Your task to perform on an android device: check data usage Image 0: 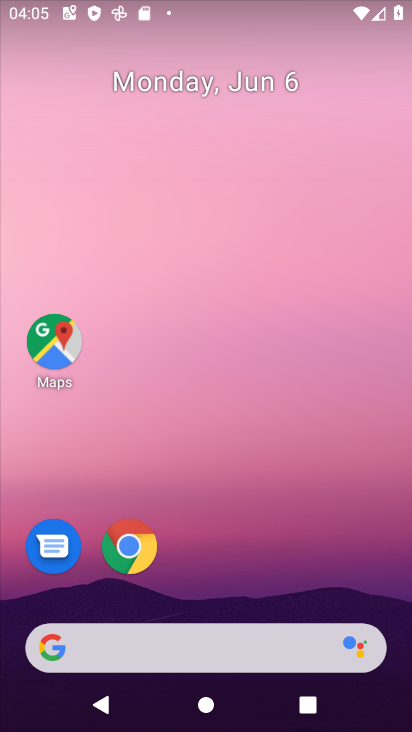
Step 0: drag from (258, 595) to (386, 3)
Your task to perform on an android device: check data usage Image 1: 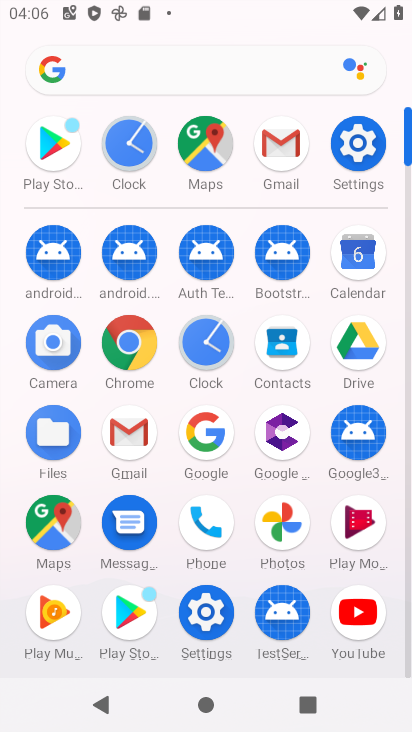
Step 1: click (369, 162)
Your task to perform on an android device: check data usage Image 2: 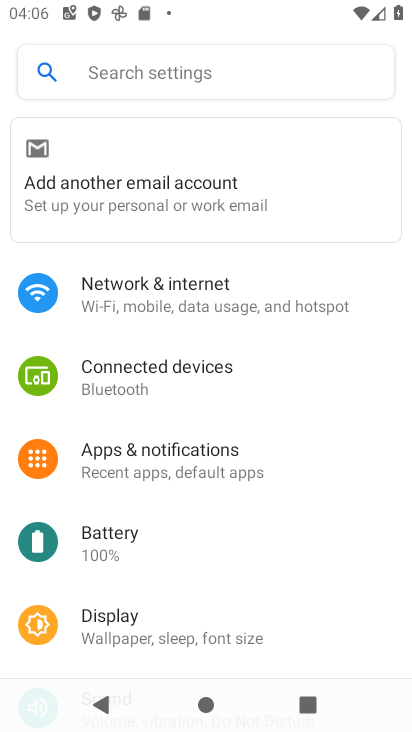
Step 2: click (202, 276)
Your task to perform on an android device: check data usage Image 3: 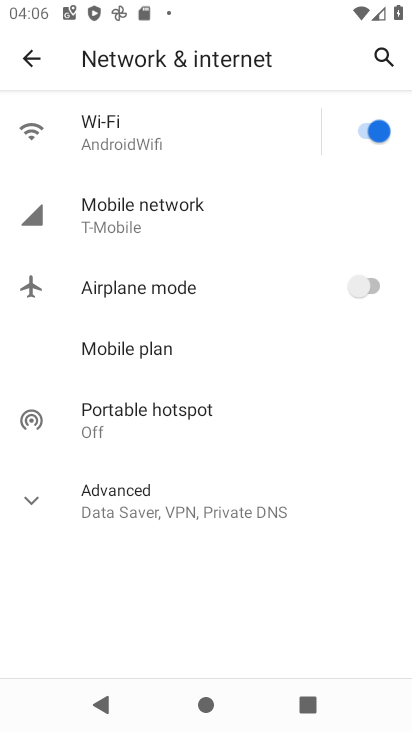
Step 3: task complete